Your task to perform on an android device: Open internet settings Image 0: 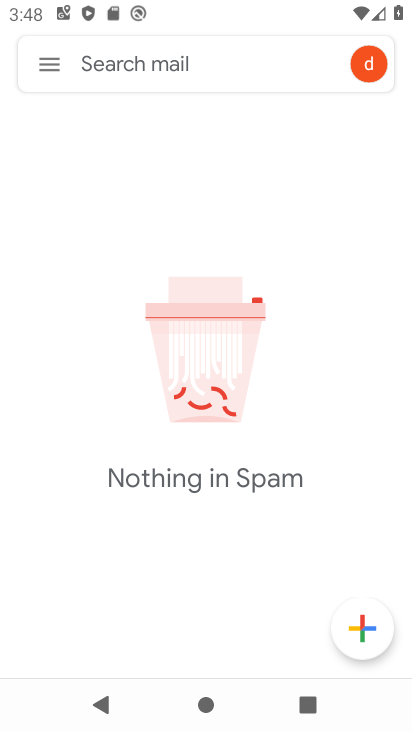
Step 0: press home button
Your task to perform on an android device: Open internet settings Image 1: 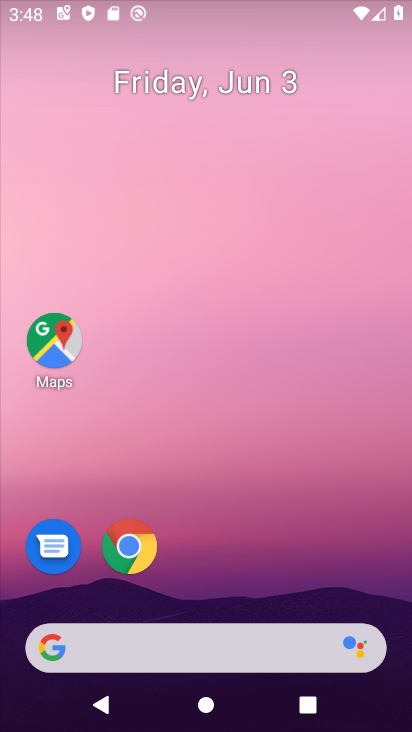
Step 1: drag from (270, 584) to (271, 38)
Your task to perform on an android device: Open internet settings Image 2: 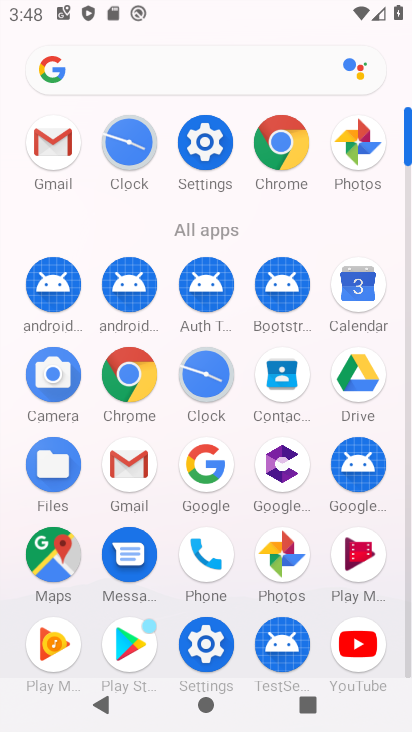
Step 2: click (205, 142)
Your task to perform on an android device: Open internet settings Image 3: 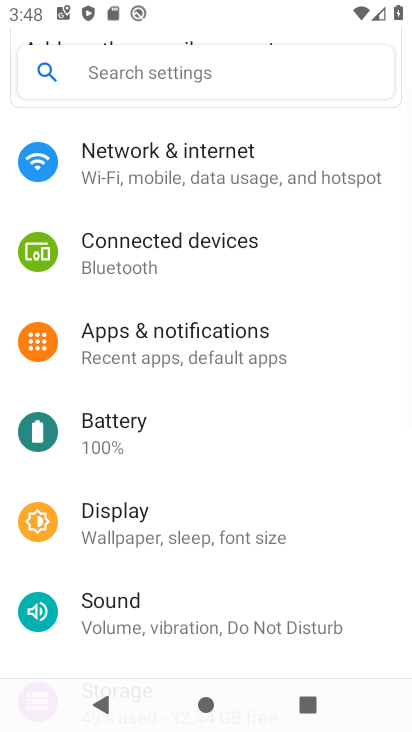
Step 3: click (201, 157)
Your task to perform on an android device: Open internet settings Image 4: 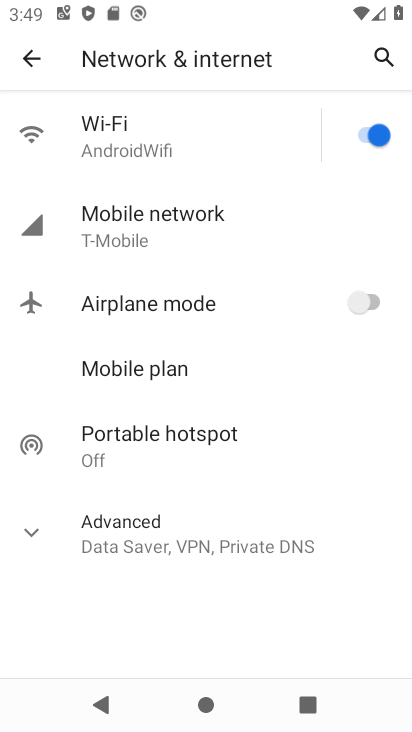
Step 4: task complete